Your task to perform on an android device: What's the weather today? Image 0: 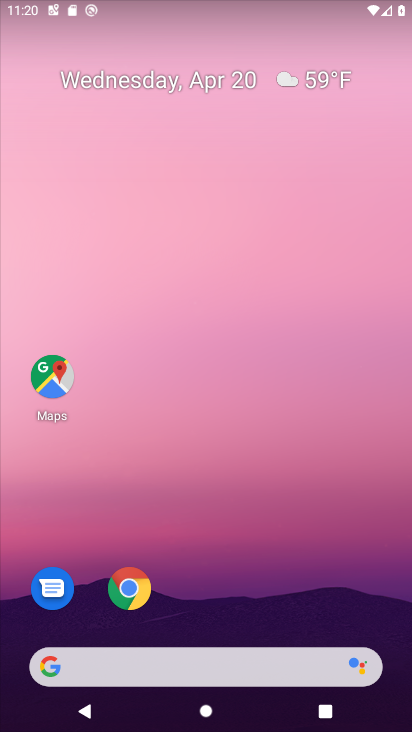
Step 0: click (344, 85)
Your task to perform on an android device: What's the weather today? Image 1: 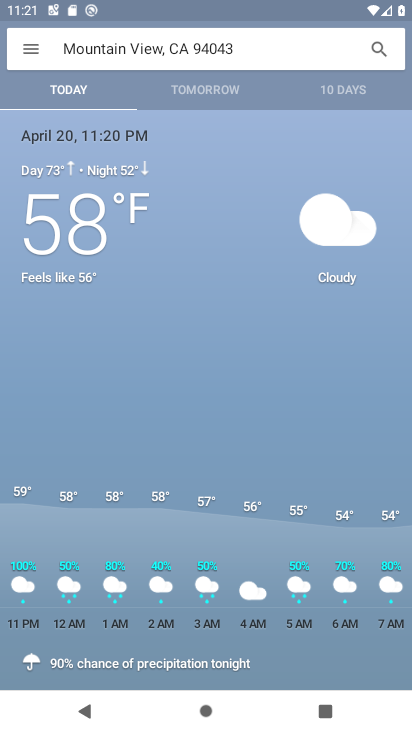
Step 1: task complete